Your task to perform on an android device: empty trash in google photos Image 0: 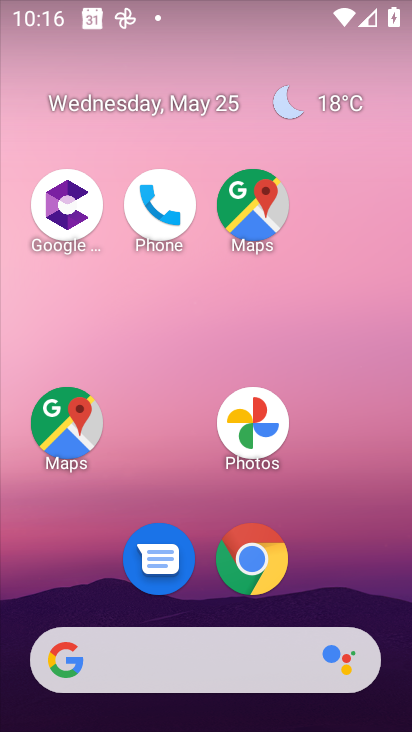
Step 0: click (260, 422)
Your task to perform on an android device: empty trash in google photos Image 1: 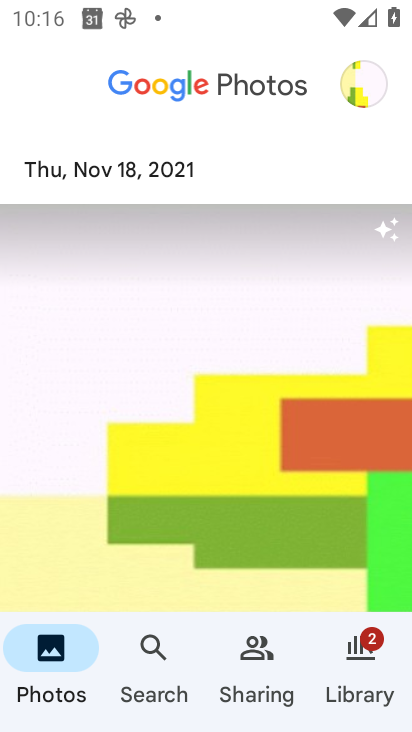
Step 1: click (360, 650)
Your task to perform on an android device: empty trash in google photos Image 2: 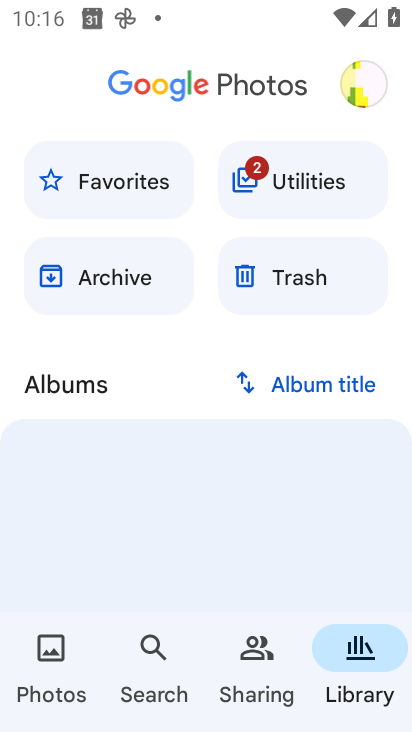
Step 2: click (292, 282)
Your task to perform on an android device: empty trash in google photos Image 3: 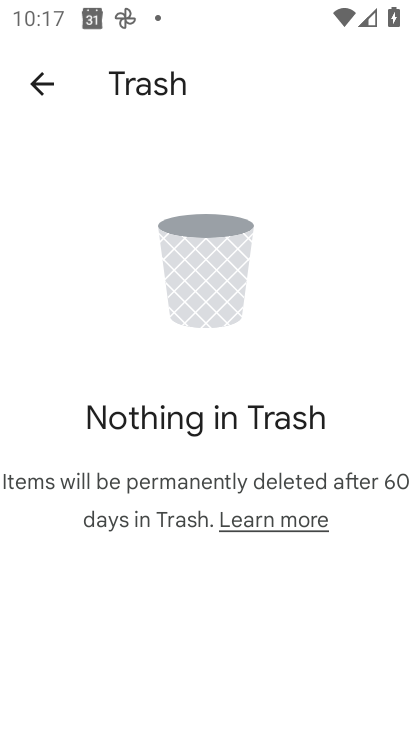
Step 3: task complete